Your task to perform on an android device: Go to calendar. Show me events next week Image 0: 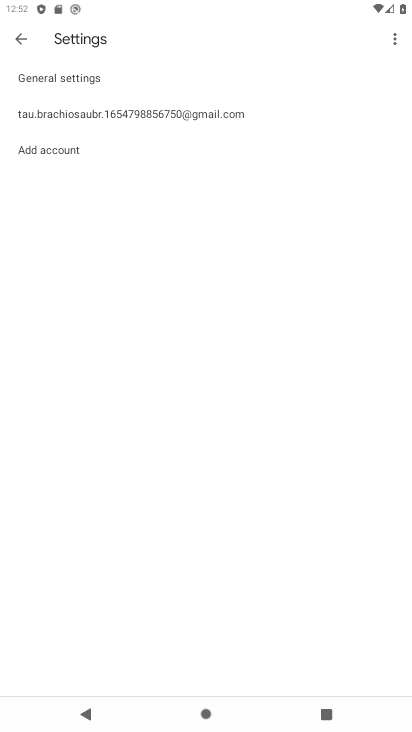
Step 0: press home button
Your task to perform on an android device: Go to calendar. Show me events next week Image 1: 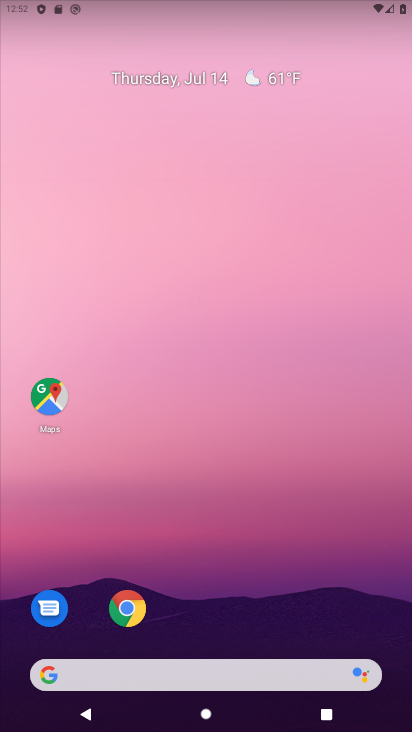
Step 1: drag from (318, 599) to (316, 181)
Your task to perform on an android device: Go to calendar. Show me events next week Image 2: 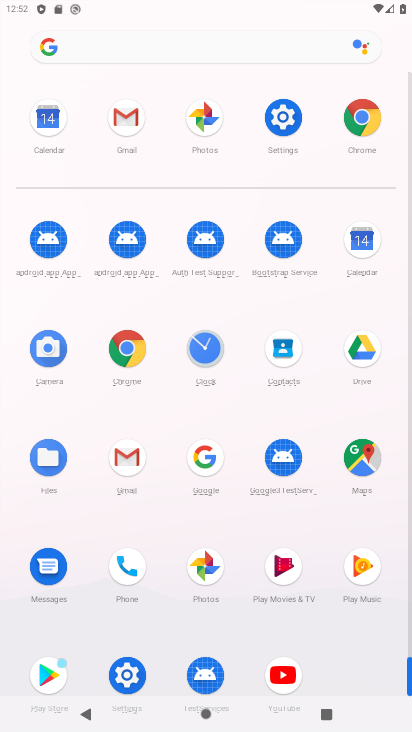
Step 2: click (361, 244)
Your task to perform on an android device: Go to calendar. Show me events next week Image 3: 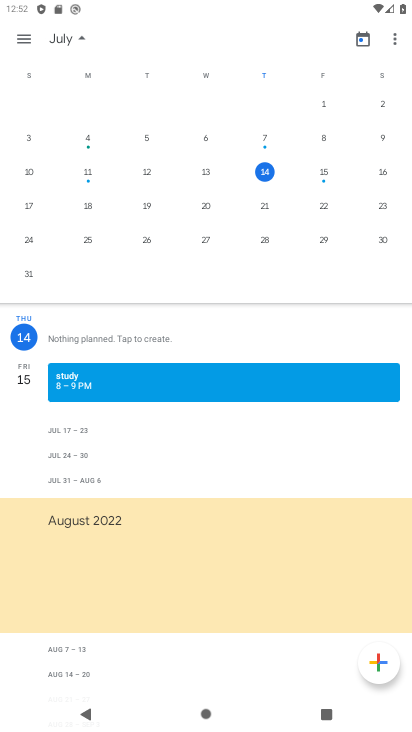
Step 3: click (85, 209)
Your task to perform on an android device: Go to calendar. Show me events next week Image 4: 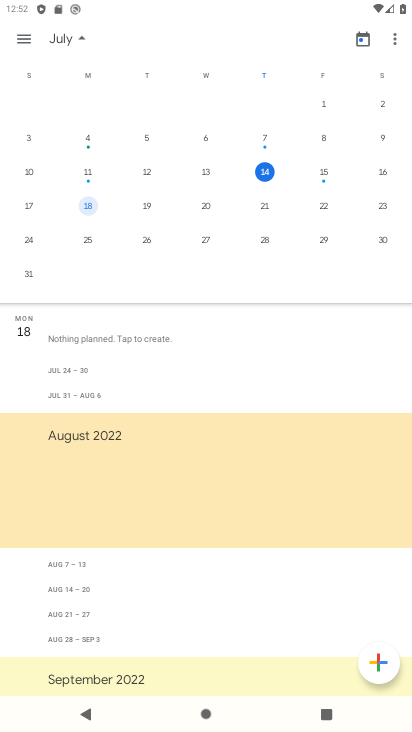
Step 4: task complete